Your task to perform on an android device: turn pop-ups on in chrome Image 0: 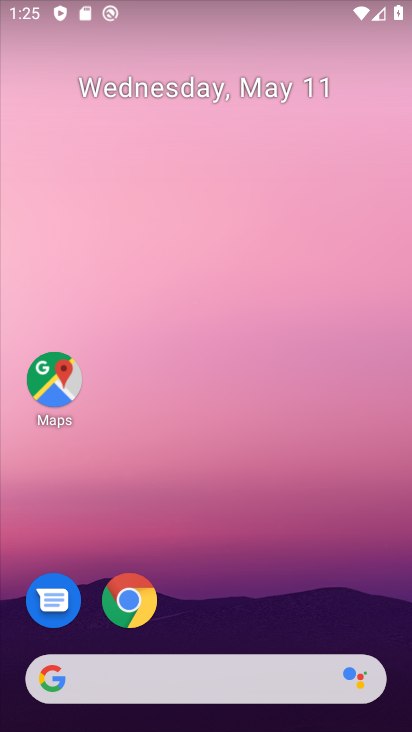
Step 0: drag from (289, 595) to (272, 288)
Your task to perform on an android device: turn pop-ups on in chrome Image 1: 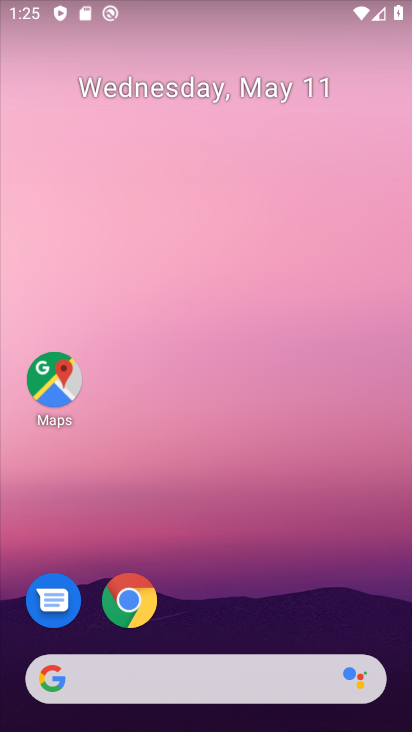
Step 1: drag from (203, 626) to (298, 201)
Your task to perform on an android device: turn pop-ups on in chrome Image 2: 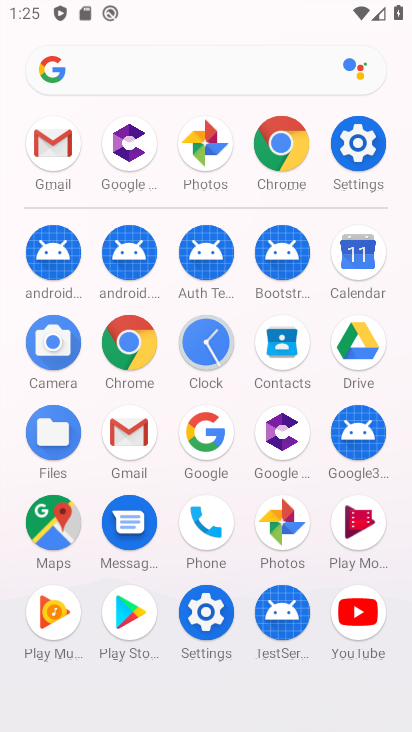
Step 2: click (290, 134)
Your task to perform on an android device: turn pop-ups on in chrome Image 3: 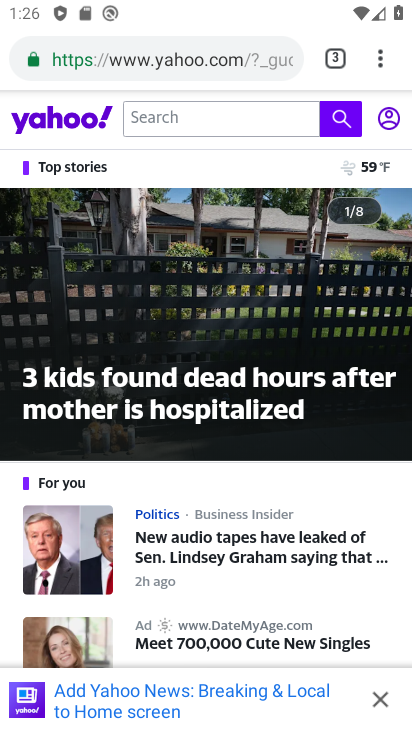
Step 3: click (367, 57)
Your task to perform on an android device: turn pop-ups on in chrome Image 4: 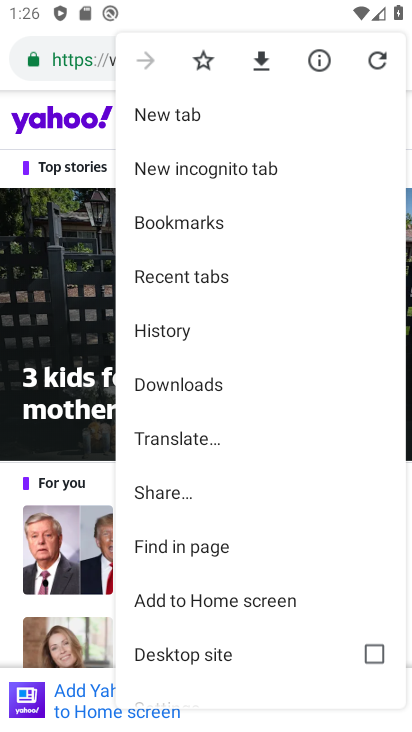
Step 4: drag from (193, 630) to (254, 381)
Your task to perform on an android device: turn pop-ups on in chrome Image 5: 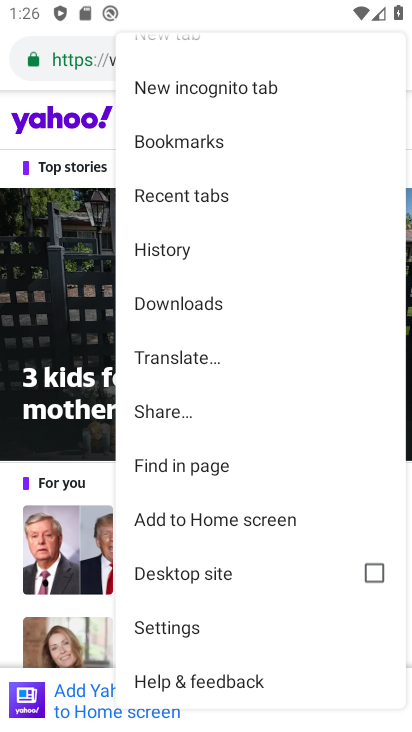
Step 5: click (189, 627)
Your task to perform on an android device: turn pop-ups on in chrome Image 6: 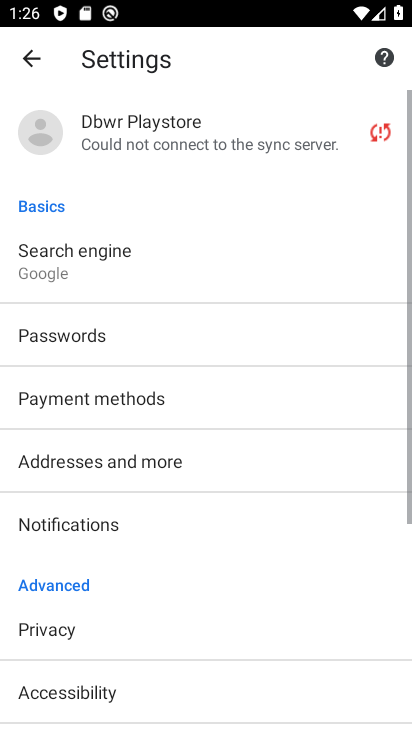
Step 6: drag from (116, 666) to (167, 287)
Your task to perform on an android device: turn pop-ups on in chrome Image 7: 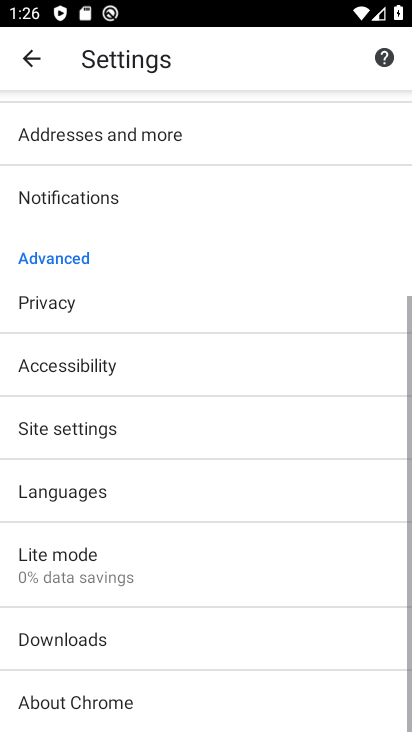
Step 7: click (94, 423)
Your task to perform on an android device: turn pop-ups on in chrome Image 8: 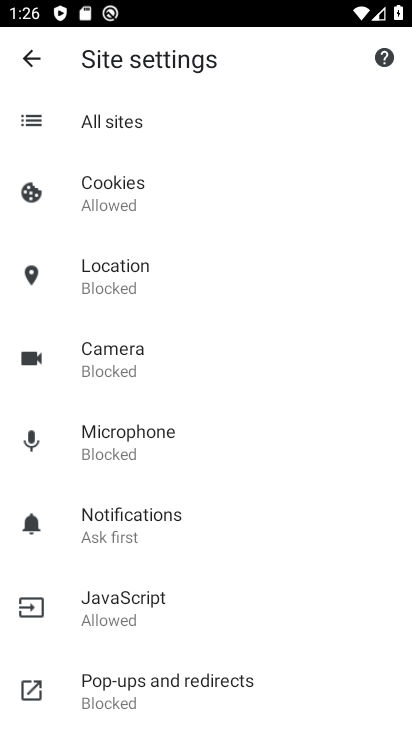
Step 8: click (143, 684)
Your task to perform on an android device: turn pop-ups on in chrome Image 9: 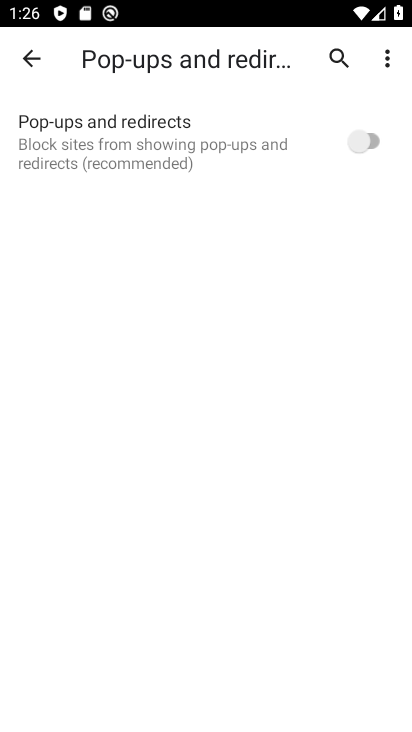
Step 9: click (366, 146)
Your task to perform on an android device: turn pop-ups on in chrome Image 10: 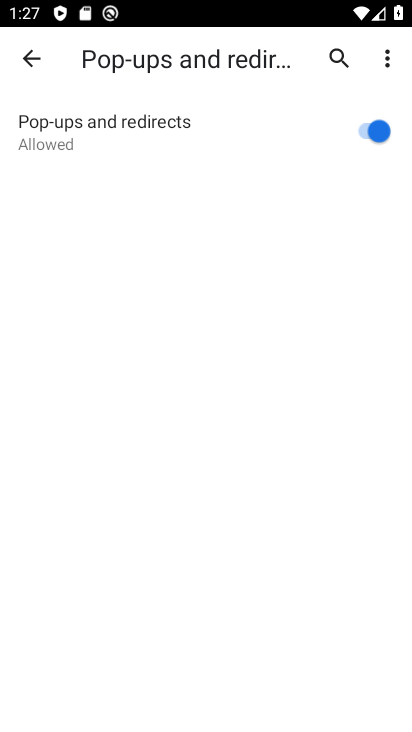
Step 10: task complete